Your task to perform on an android device: Go to settings Image 0: 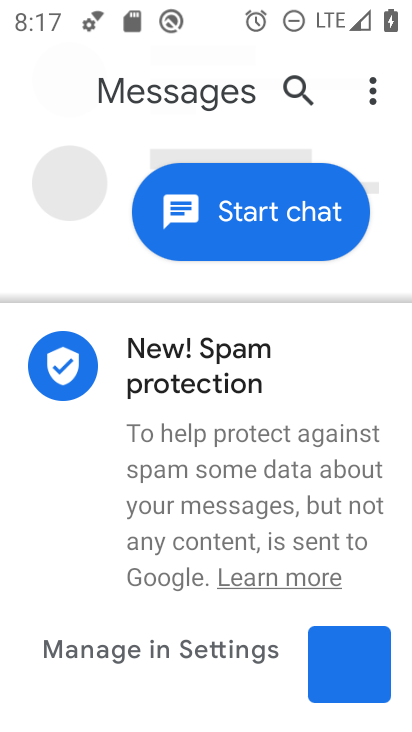
Step 0: press home button
Your task to perform on an android device: Go to settings Image 1: 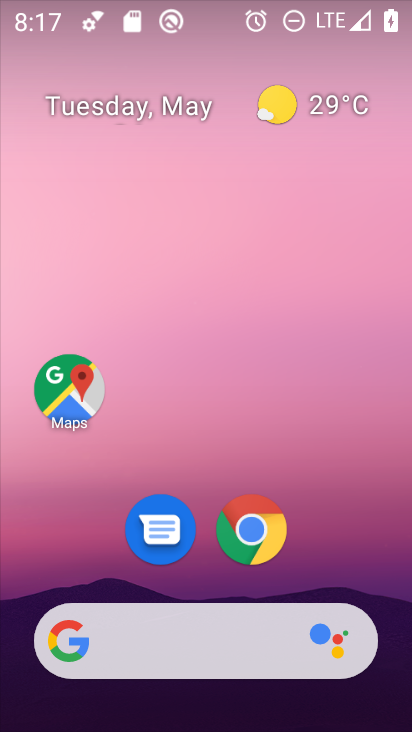
Step 1: drag from (393, 645) to (291, 126)
Your task to perform on an android device: Go to settings Image 2: 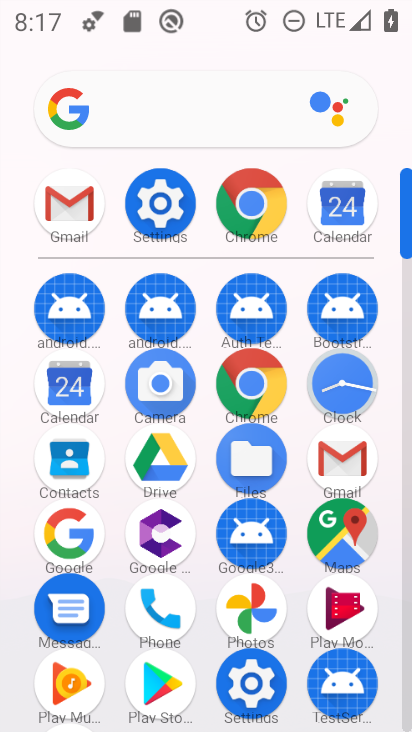
Step 2: click (263, 673)
Your task to perform on an android device: Go to settings Image 3: 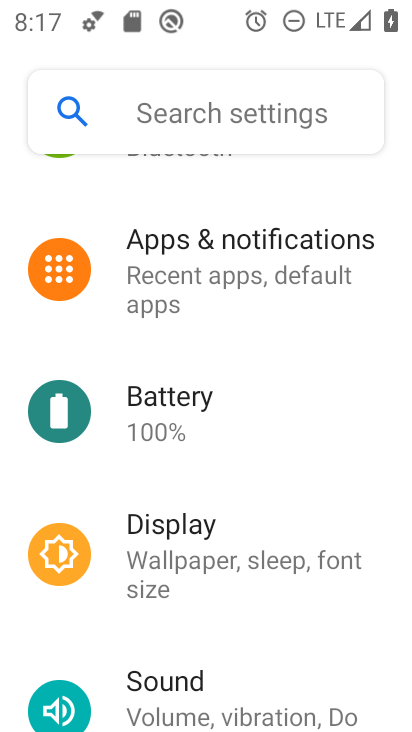
Step 3: task complete